Your task to perform on an android device: turn notification dots on Image 0: 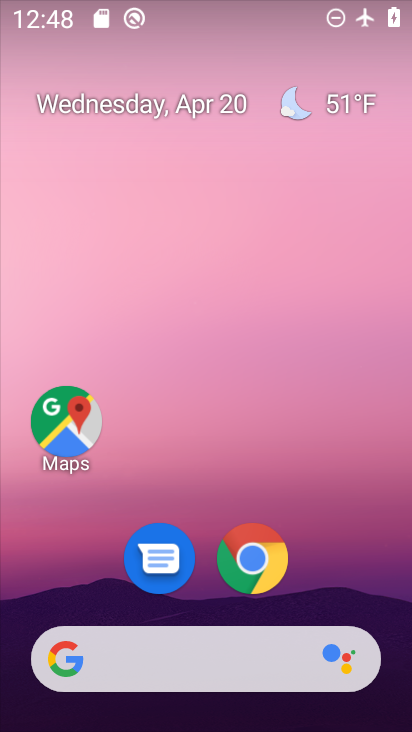
Step 0: drag from (375, 588) to (302, 119)
Your task to perform on an android device: turn notification dots on Image 1: 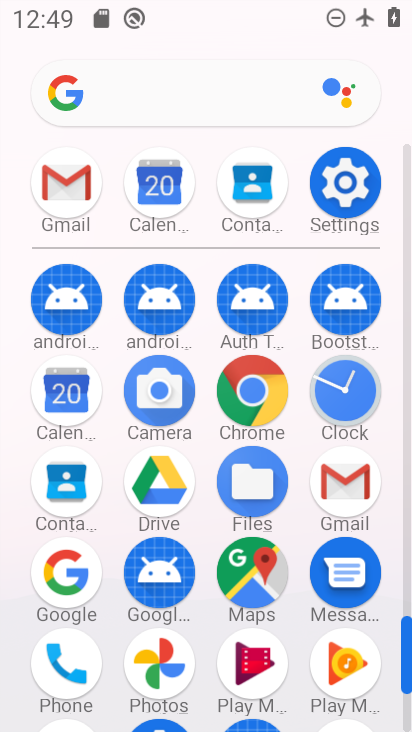
Step 1: click (408, 711)
Your task to perform on an android device: turn notification dots on Image 2: 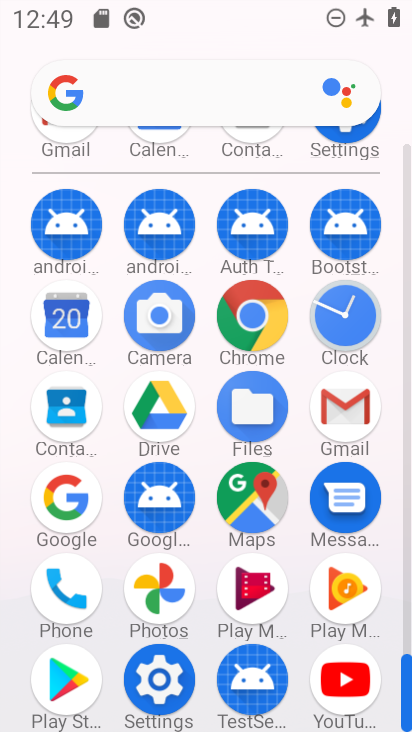
Step 2: click (157, 680)
Your task to perform on an android device: turn notification dots on Image 3: 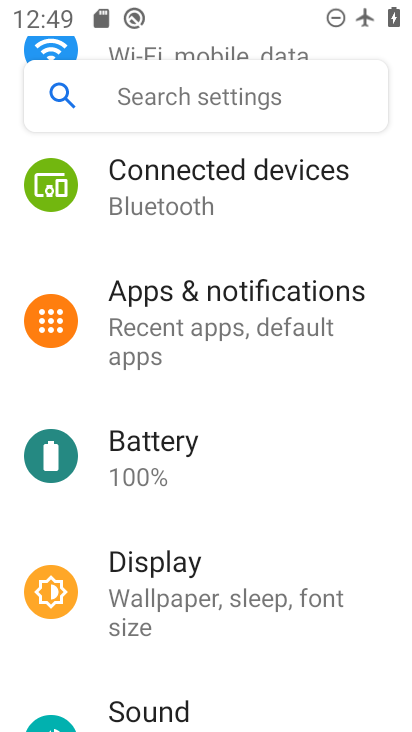
Step 3: click (201, 308)
Your task to perform on an android device: turn notification dots on Image 4: 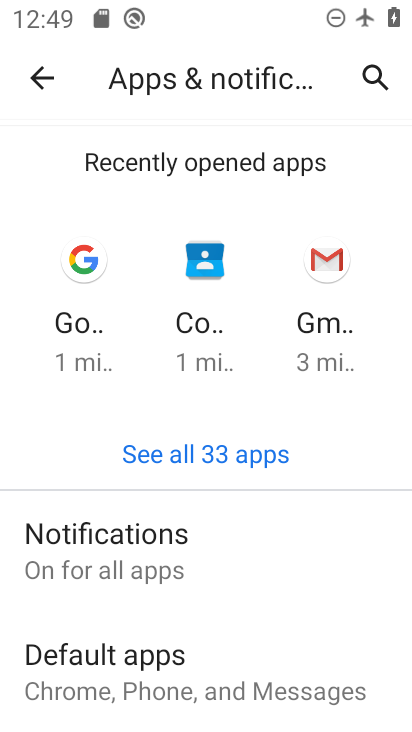
Step 4: click (93, 539)
Your task to perform on an android device: turn notification dots on Image 5: 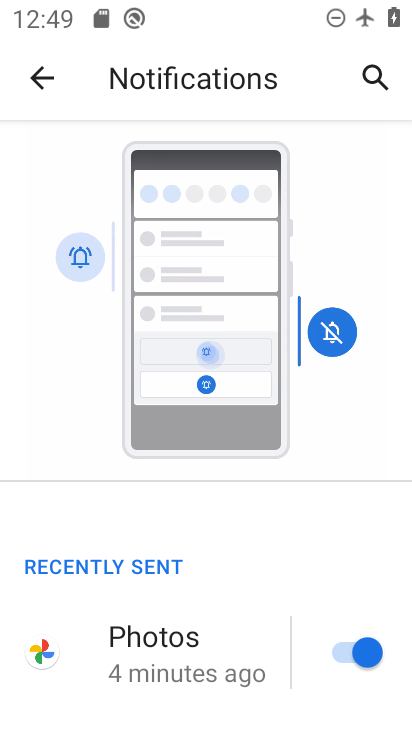
Step 5: drag from (287, 643) to (268, 247)
Your task to perform on an android device: turn notification dots on Image 6: 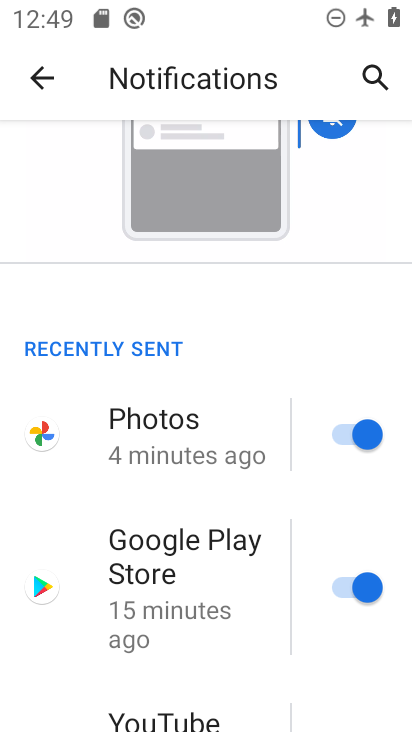
Step 6: drag from (284, 668) to (291, 255)
Your task to perform on an android device: turn notification dots on Image 7: 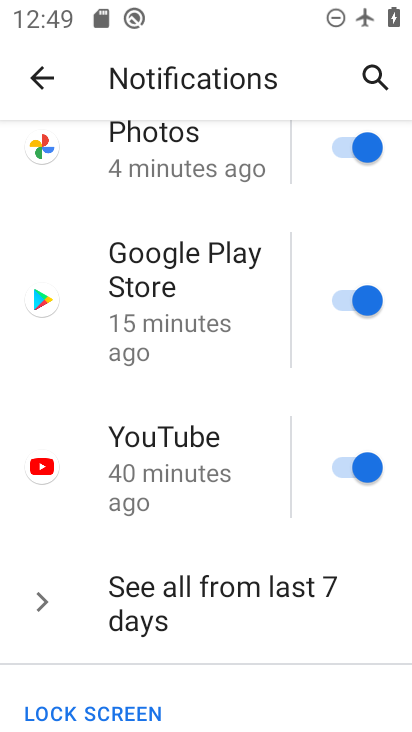
Step 7: drag from (275, 569) to (293, 274)
Your task to perform on an android device: turn notification dots on Image 8: 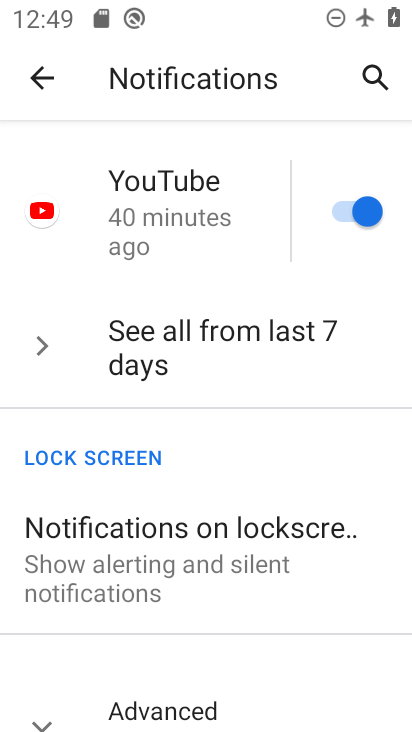
Step 8: drag from (298, 641) to (277, 311)
Your task to perform on an android device: turn notification dots on Image 9: 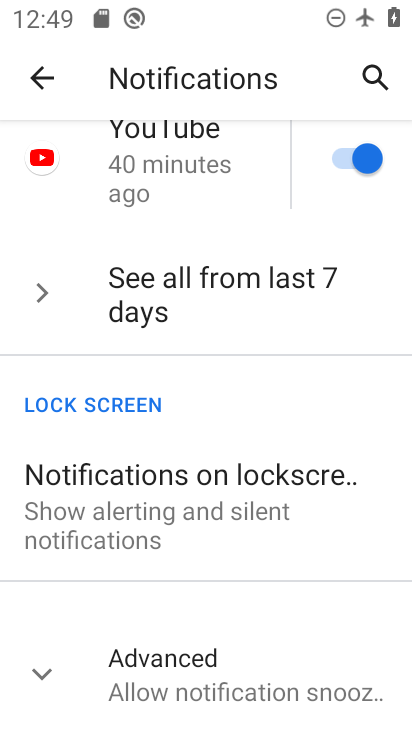
Step 9: click (39, 670)
Your task to perform on an android device: turn notification dots on Image 10: 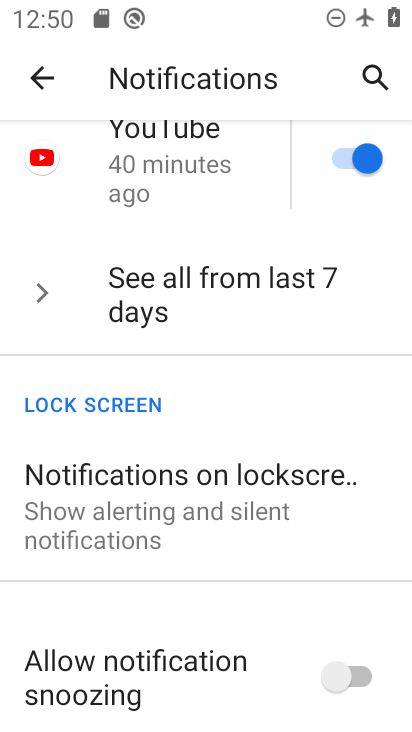
Step 10: task complete